Your task to perform on an android device: Open battery settings Image 0: 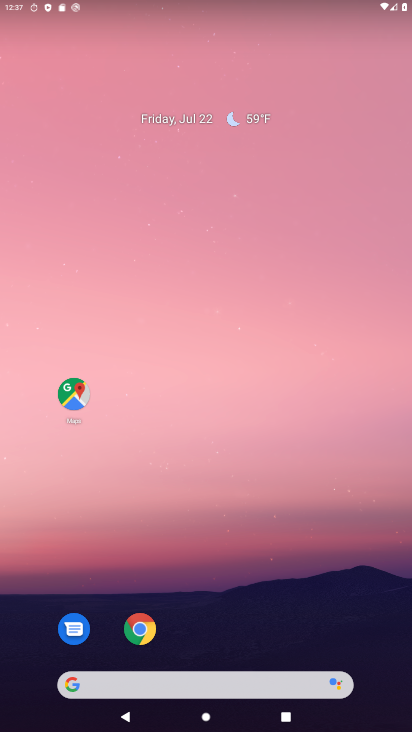
Step 0: drag from (264, 670) to (319, 125)
Your task to perform on an android device: Open battery settings Image 1: 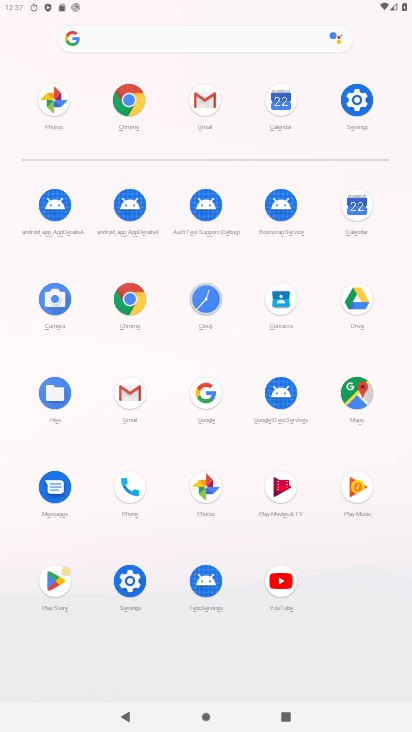
Step 1: click (363, 101)
Your task to perform on an android device: Open battery settings Image 2: 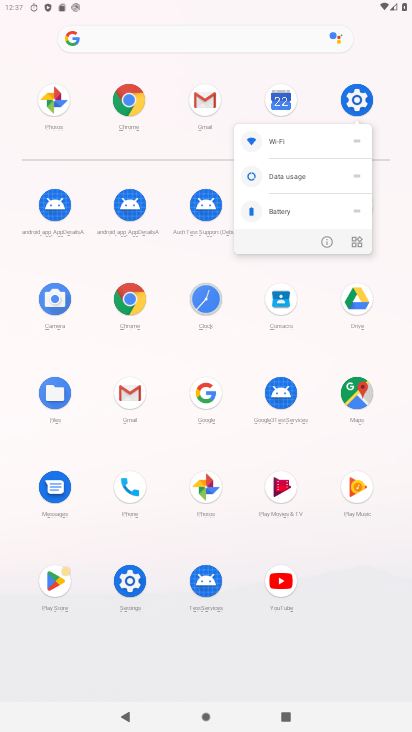
Step 2: click (362, 103)
Your task to perform on an android device: Open battery settings Image 3: 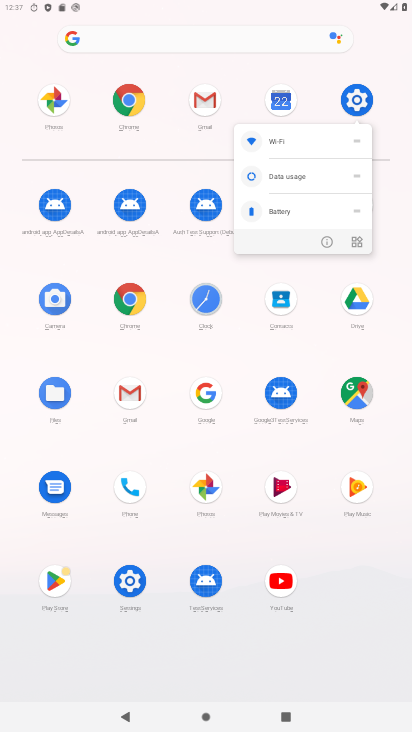
Step 3: click (362, 103)
Your task to perform on an android device: Open battery settings Image 4: 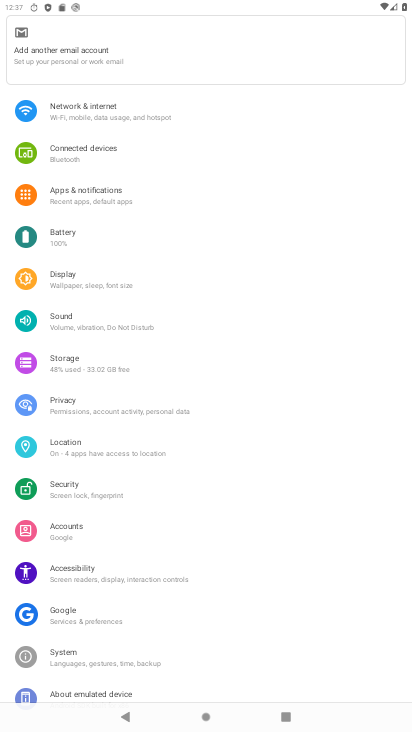
Step 4: click (82, 230)
Your task to perform on an android device: Open battery settings Image 5: 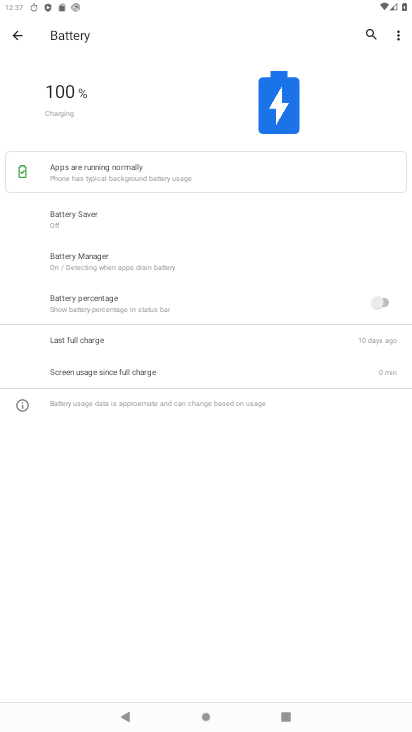
Step 5: task complete